Your task to perform on an android device: delete location history Image 0: 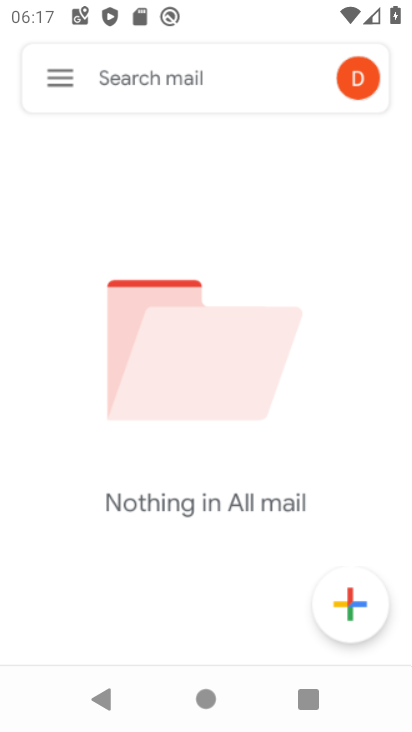
Step 0: click (250, 494)
Your task to perform on an android device: delete location history Image 1: 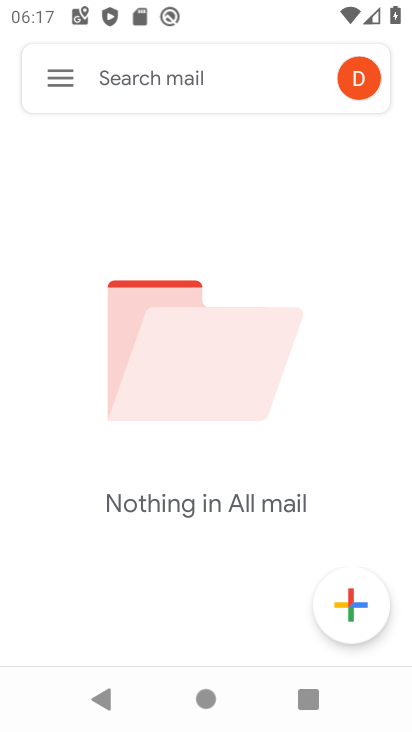
Step 1: click (66, 79)
Your task to perform on an android device: delete location history Image 2: 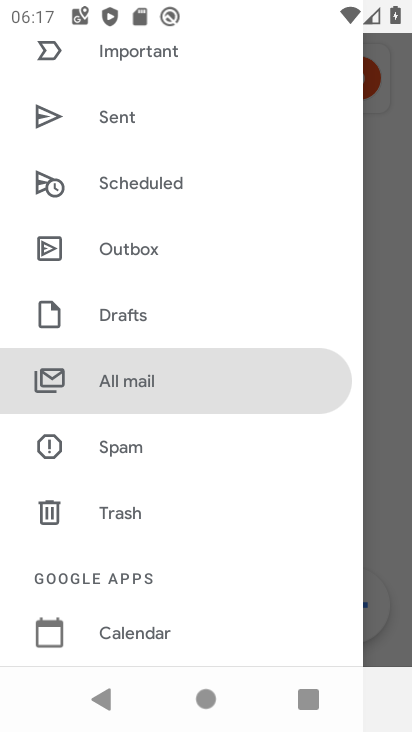
Step 2: press home button
Your task to perform on an android device: delete location history Image 3: 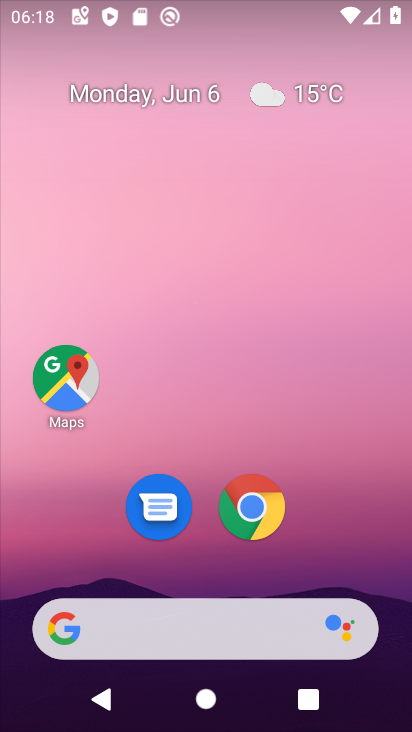
Step 3: click (255, 517)
Your task to perform on an android device: delete location history Image 4: 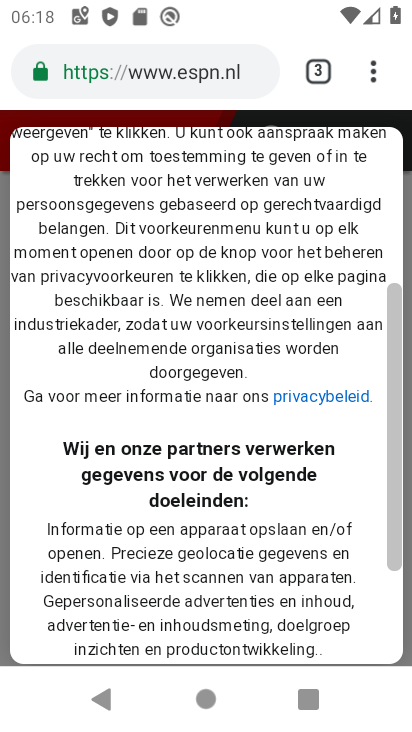
Step 4: task complete